Your task to perform on an android device: Open ESPN.com Image 0: 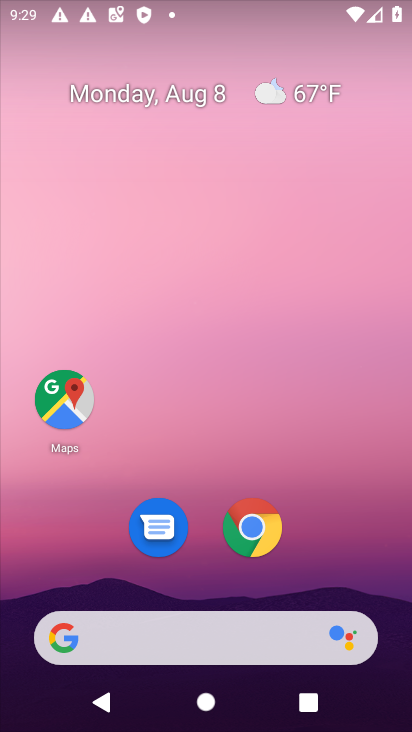
Step 0: click (252, 520)
Your task to perform on an android device: Open ESPN.com Image 1: 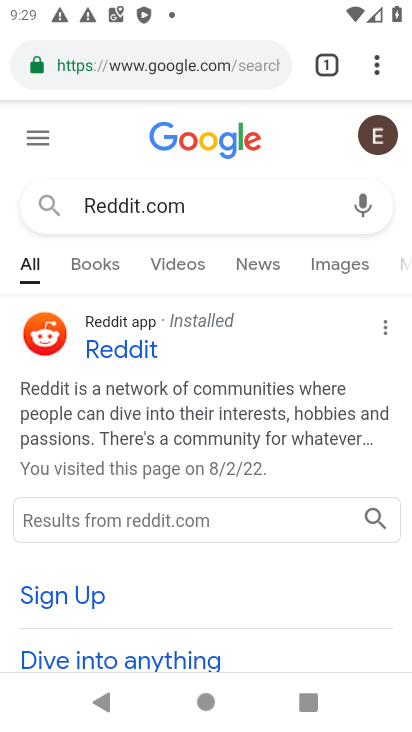
Step 1: click (241, 64)
Your task to perform on an android device: Open ESPN.com Image 2: 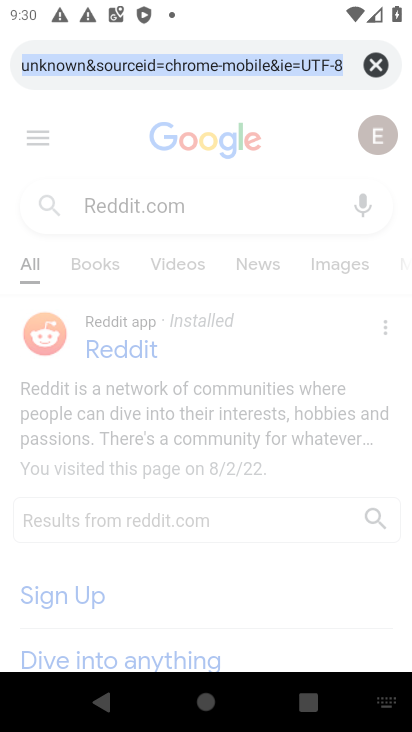
Step 2: click (377, 60)
Your task to perform on an android device: Open ESPN.com Image 3: 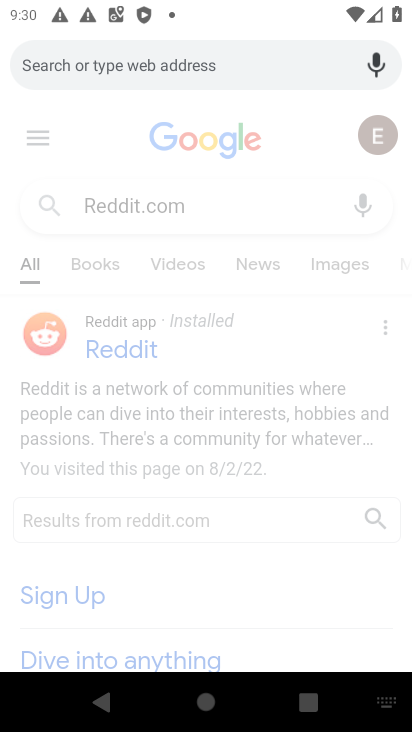
Step 3: type "ESPN.com"
Your task to perform on an android device: Open ESPN.com Image 4: 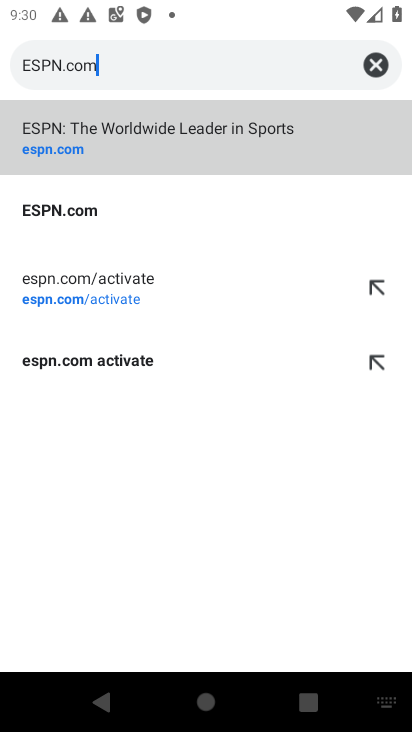
Step 4: click (78, 206)
Your task to perform on an android device: Open ESPN.com Image 5: 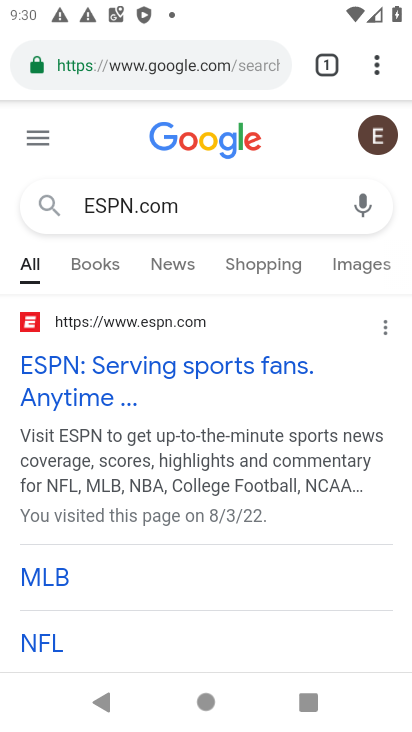
Step 5: task complete